Your task to perform on an android device: change text size in settings app Image 0: 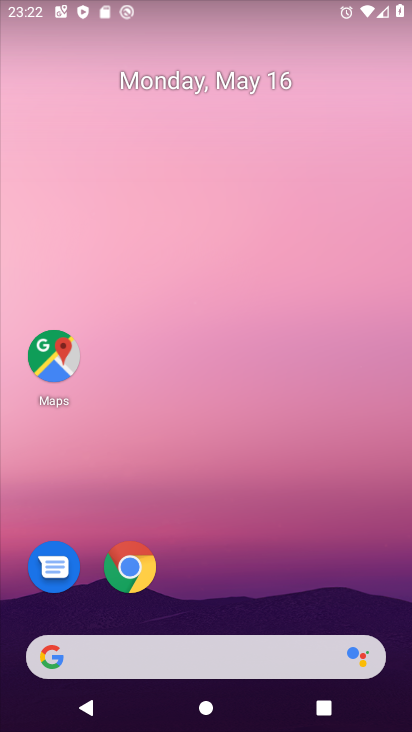
Step 0: drag from (302, 464) to (202, 69)
Your task to perform on an android device: change text size in settings app Image 1: 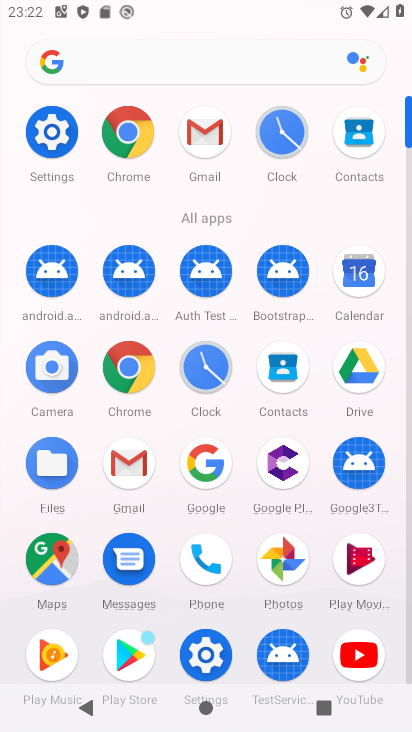
Step 1: click (53, 128)
Your task to perform on an android device: change text size in settings app Image 2: 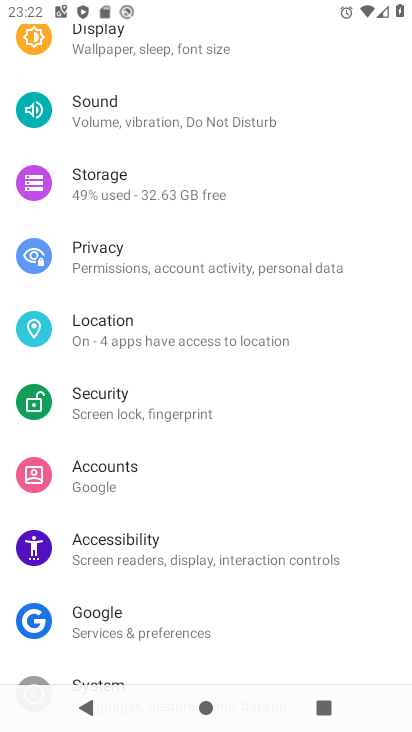
Step 2: click (82, 34)
Your task to perform on an android device: change text size in settings app Image 3: 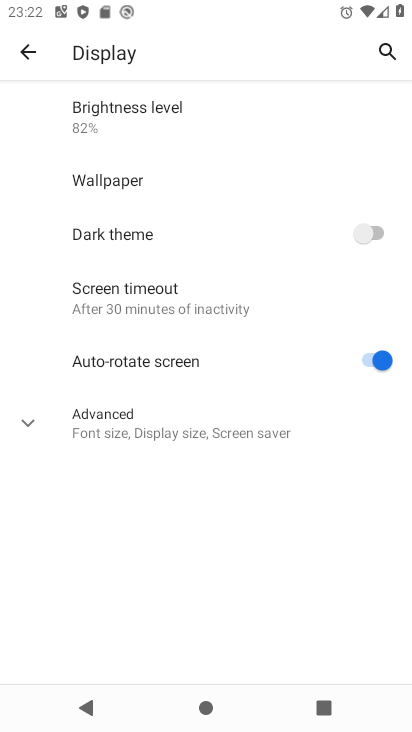
Step 3: click (121, 420)
Your task to perform on an android device: change text size in settings app Image 4: 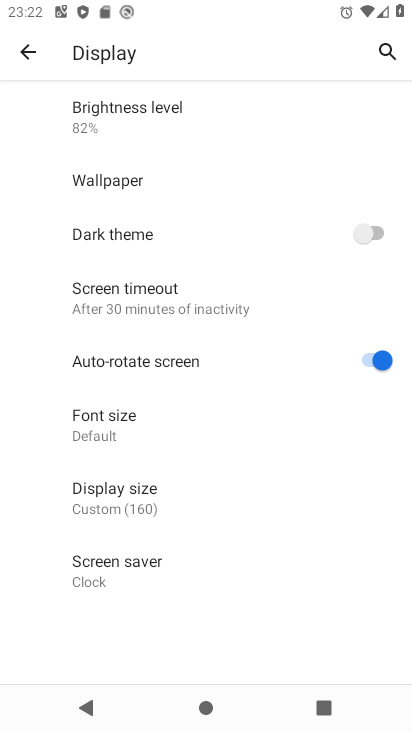
Step 4: click (99, 417)
Your task to perform on an android device: change text size in settings app Image 5: 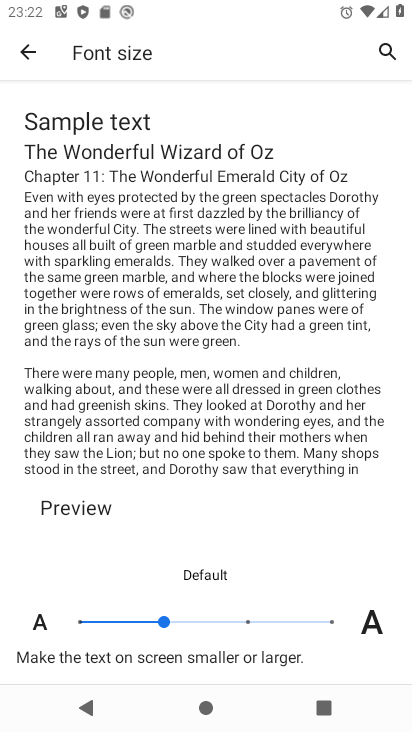
Step 5: click (204, 613)
Your task to perform on an android device: change text size in settings app Image 6: 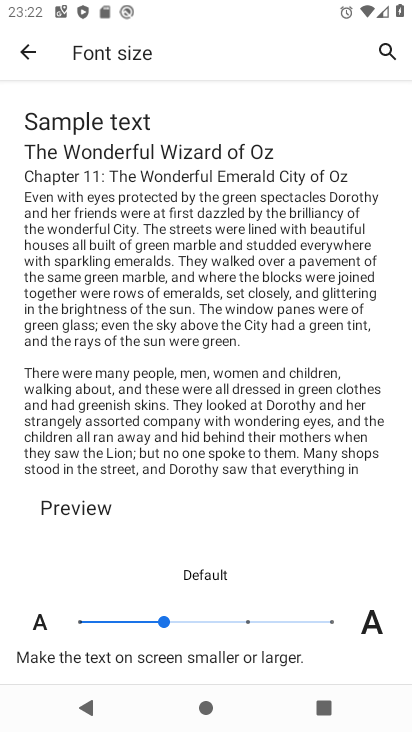
Step 6: click (242, 617)
Your task to perform on an android device: change text size in settings app Image 7: 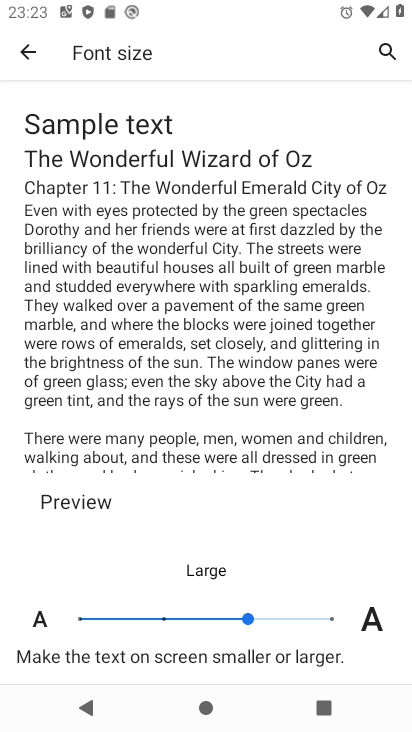
Step 7: task complete